Your task to perform on an android device: change notification settings in the gmail app Image 0: 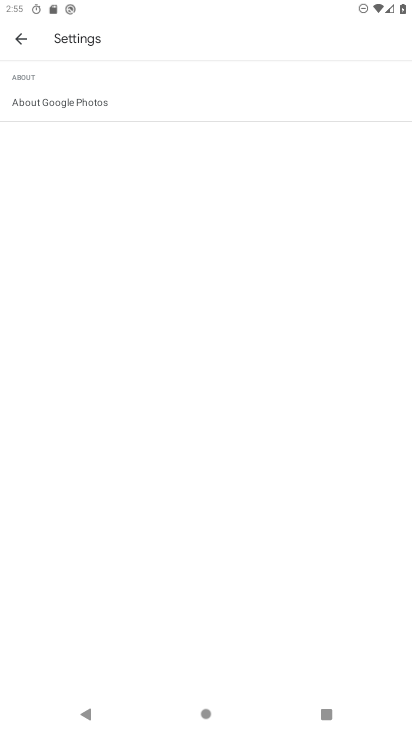
Step 0: press home button
Your task to perform on an android device: change notification settings in the gmail app Image 1: 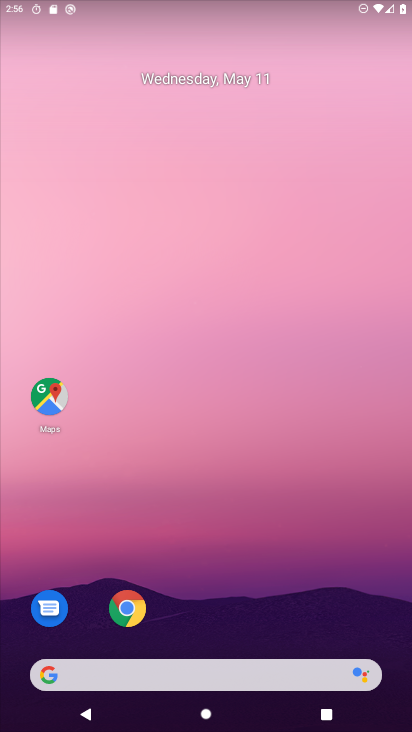
Step 1: drag from (217, 586) to (206, 277)
Your task to perform on an android device: change notification settings in the gmail app Image 2: 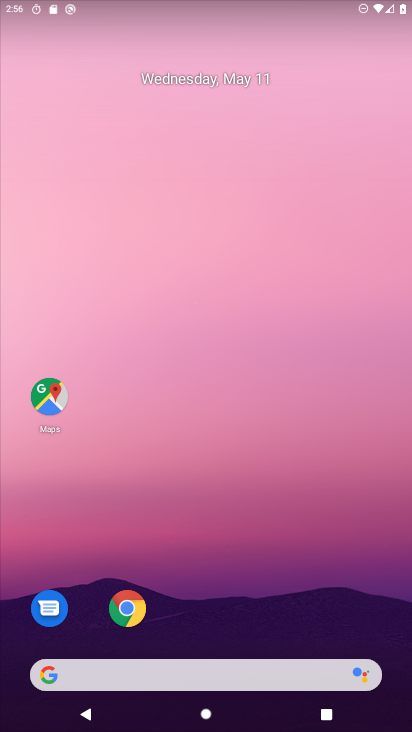
Step 2: drag from (168, 503) to (194, 73)
Your task to perform on an android device: change notification settings in the gmail app Image 3: 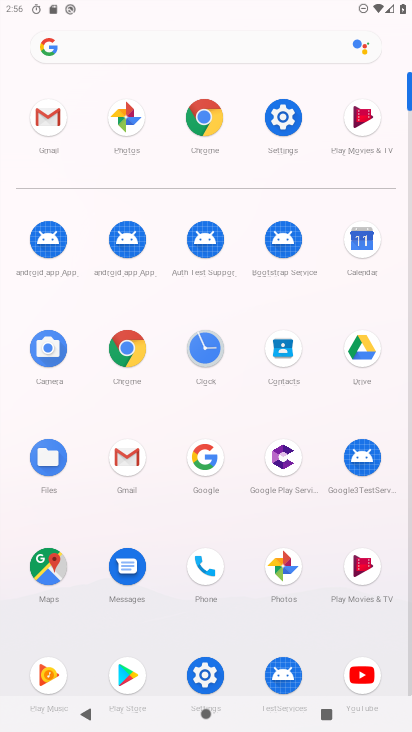
Step 3: click (52, 120)
Your task to perform on an android device: change notification settings in the gmail app Image 4: 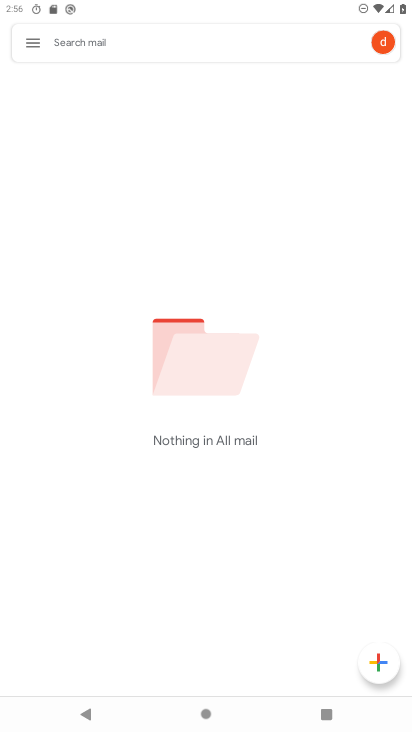
Step 4: click (17, 34)
Your task to perform on an android device: change notification settings in the gmail app Image 5: 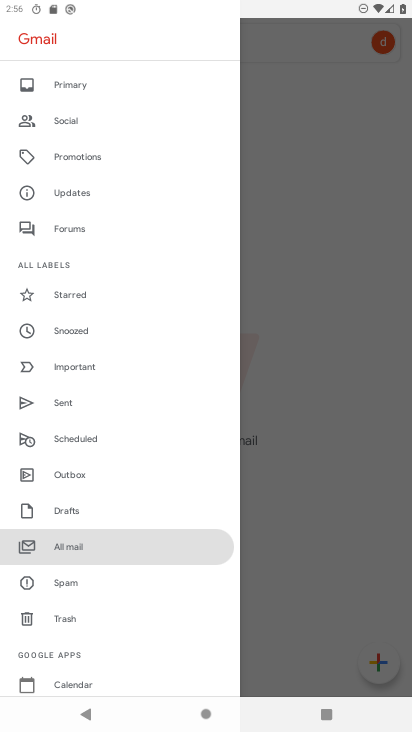
Step 5: drag from (114, 670) to (161, 379)
Your task to perform on an android device: change notification settings in the gmail app Image 6: 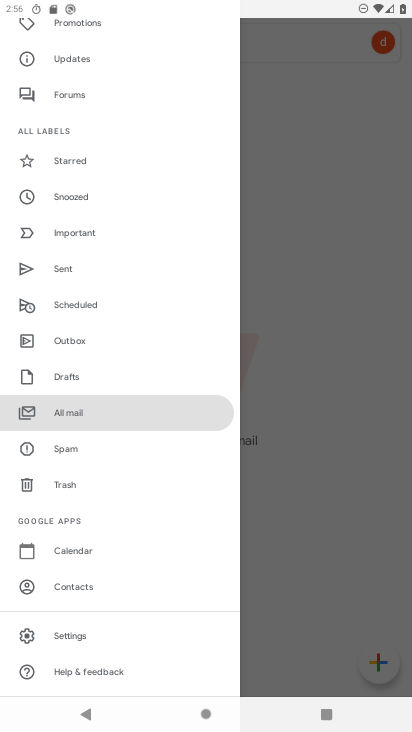
Step 6: click (106, 631)
Your task to perform on an android device: change notification settings in the gmail app Image 7: 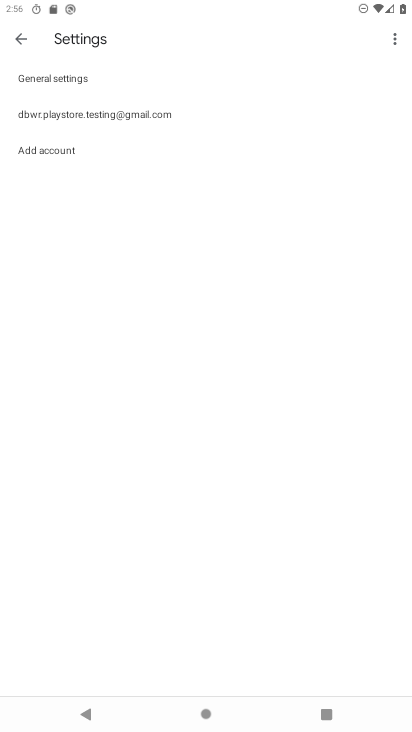
Step 7: click (69, 74)
Your task to perform on an android device: change notification settings in the gmail app Image 8: 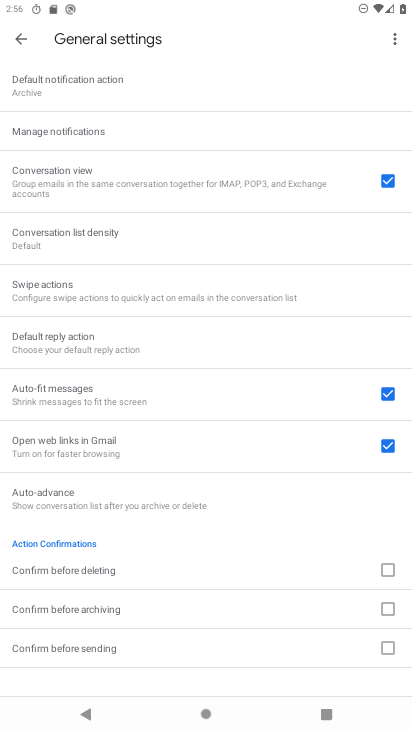
Step 8: drag from (194, 651) to (216, 323)
Your task to perform on an android device: change notification settings in the gmail app Image 9: 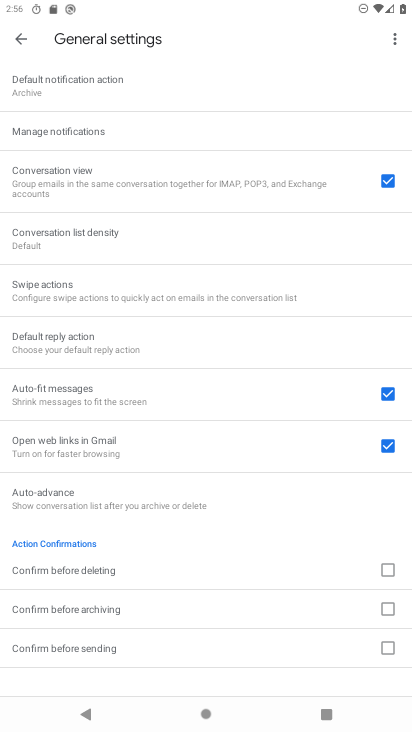
Step 9: click (204, 118)
Your task to perform on an android device: change notification settings in the gmail app Image 10: 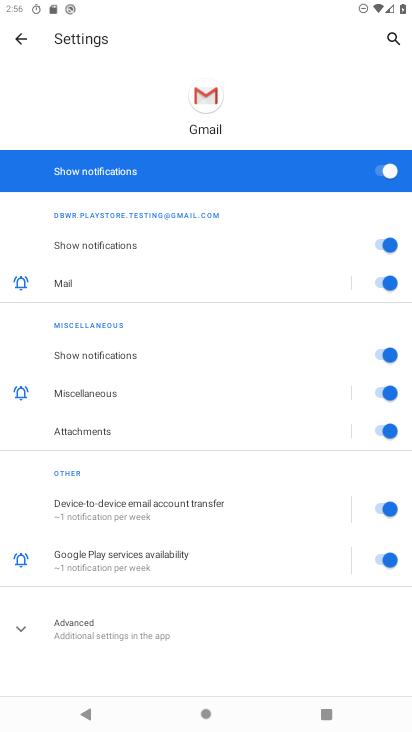
Step 10: task complete